Your task to perform on an android device: add a label to a message in the gmail app Image 0: 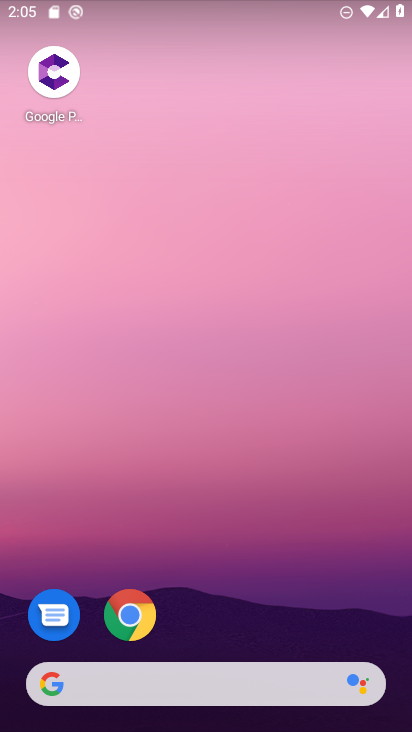
Step 0: drag from (269, 569) to (252, 21)
Your task to perform on an android device: add a label to a message in the gmail app Image 1: 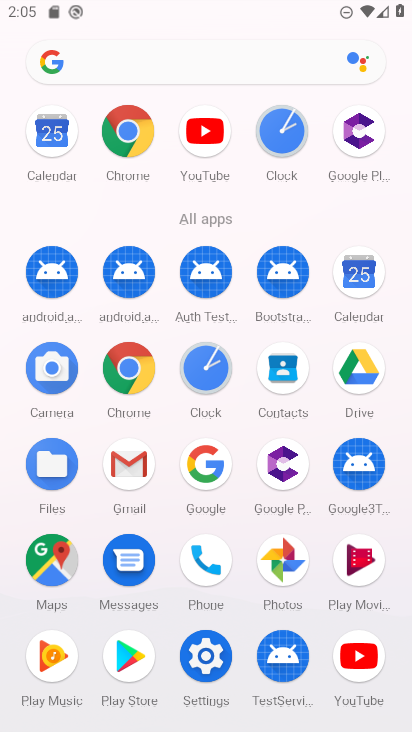
Step 1: click (135, 462)
Your task to perform on an android device: add a label to a message in the gmail app Image 2: 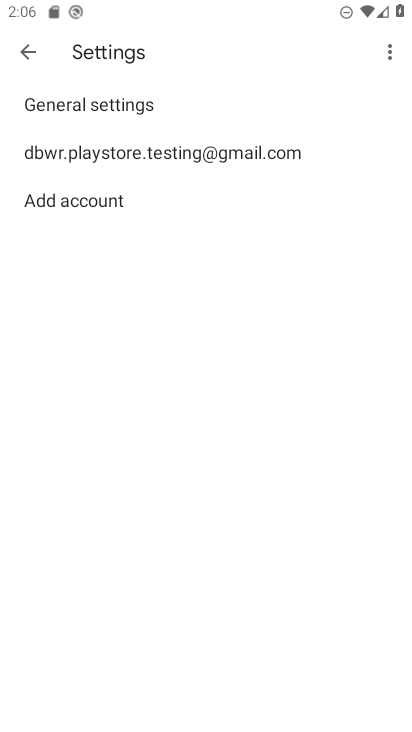
Step 2: click (30, 44)
Your task to perform on an android device: add a label to a message in the gmail app Image 3: 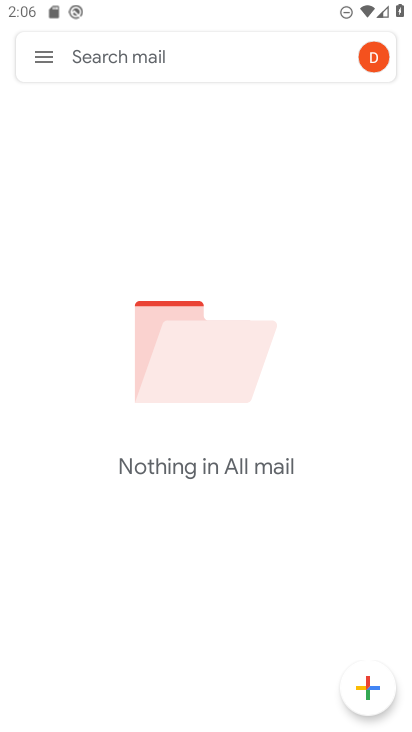
Step 3: task complete